Your task to perform on an android device: change notification settings in the gmail app Image 0: 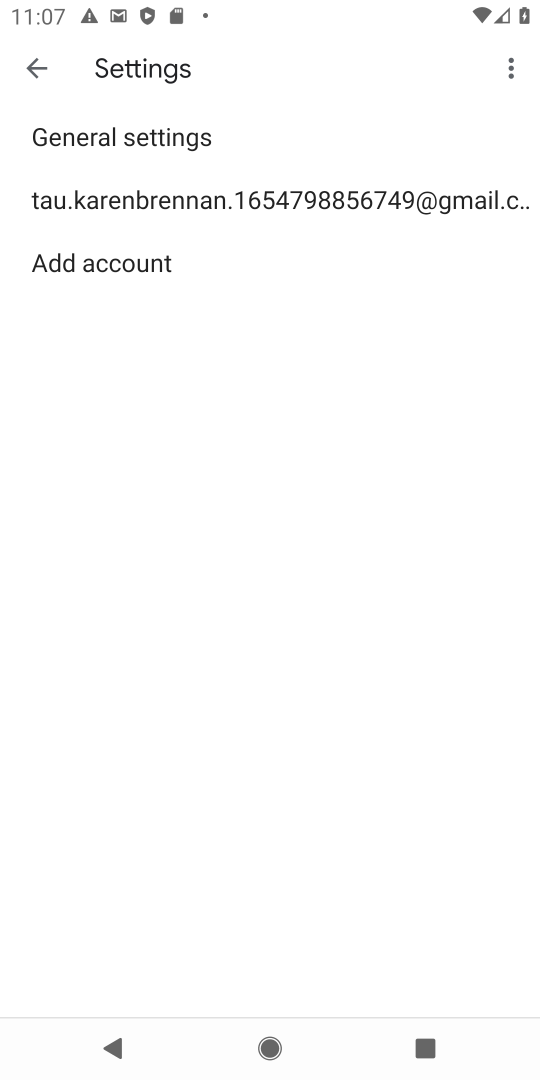
Step 0: press home button
Your task to perform on an android device: change notification settings in the gmail app Image 1: 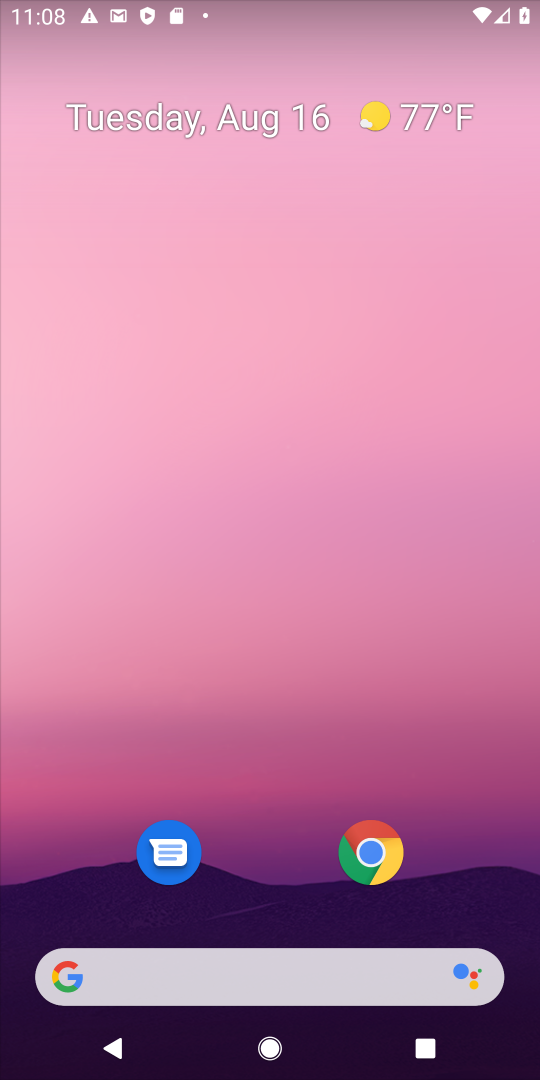
Step 1: drag from (286, 797) to (272, 166)
Your task to perform on an android device: change notification settings in the gmail app Image 2: 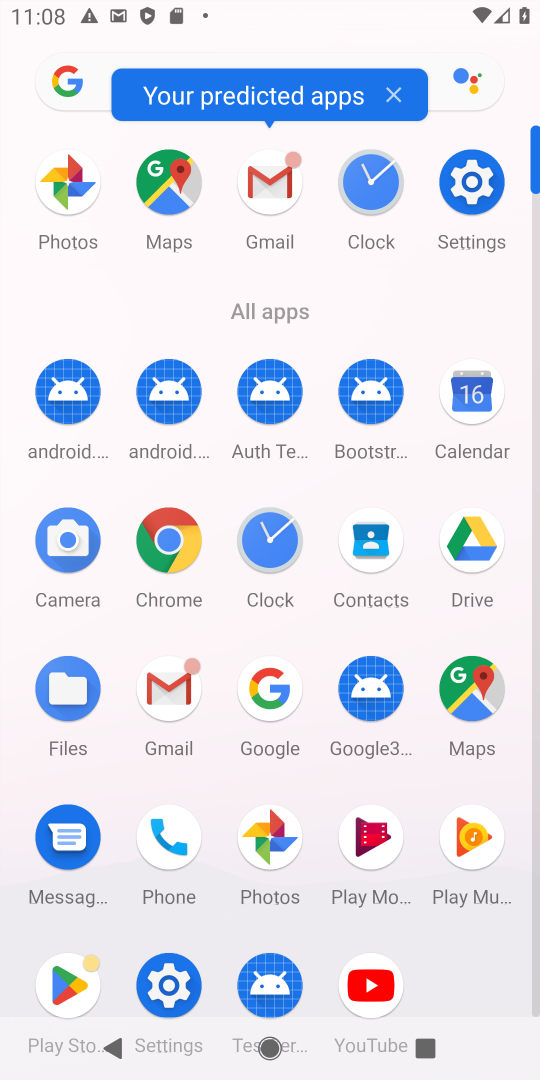
Step 2: click (168, 687)
Your task to perform on an android device: change notification settings in the gmail app Image 3: 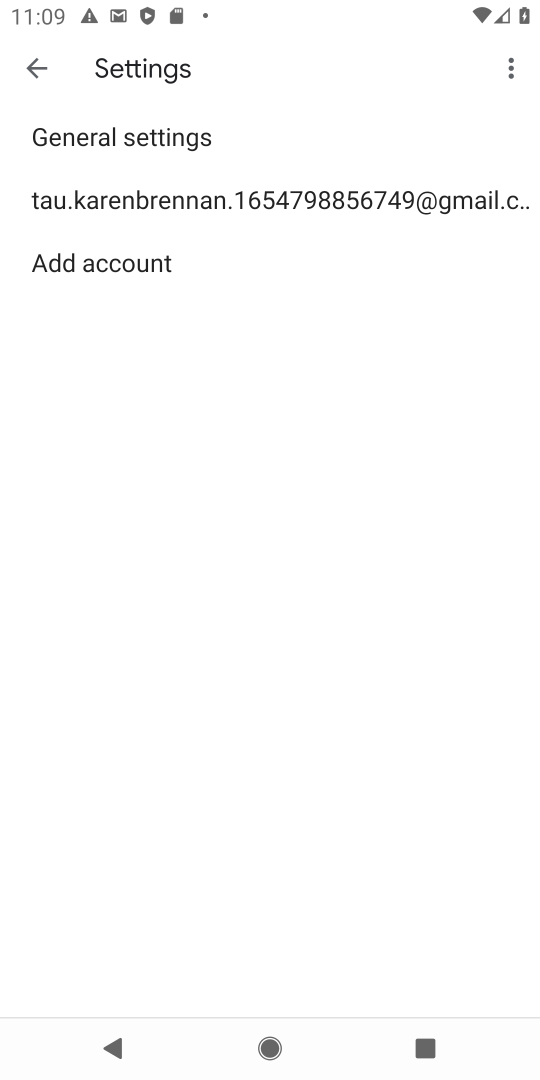
Step 3: task complete